Your task to perform on an android device: change timer sound Image 0: 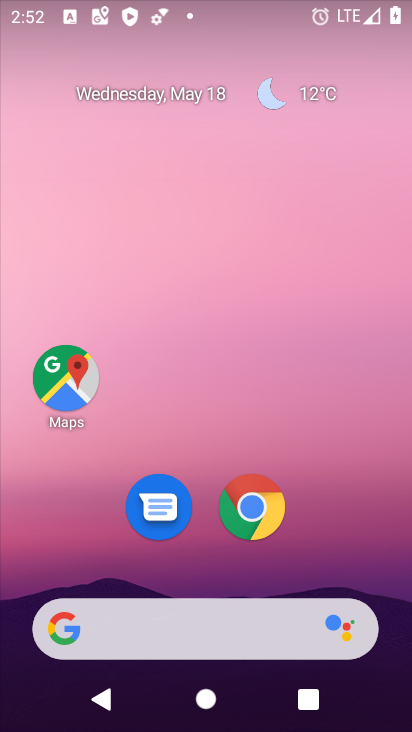
Step 0: drag from (386, 586) to (363, 91)
Your task to perform on an android device: change timer sound Image 1: 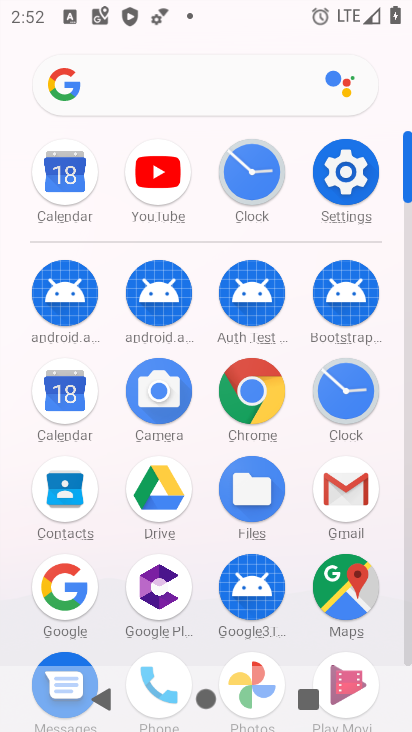
Step 1: click (344, 394)
Your task to perform on an android device: change timer sound Image 2: 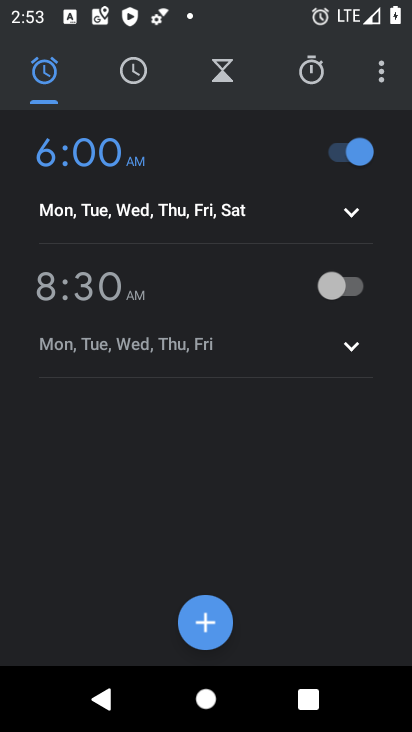
Step 2: click (381, 65)
Your task to perform on an android device: change timer sound Image 3: 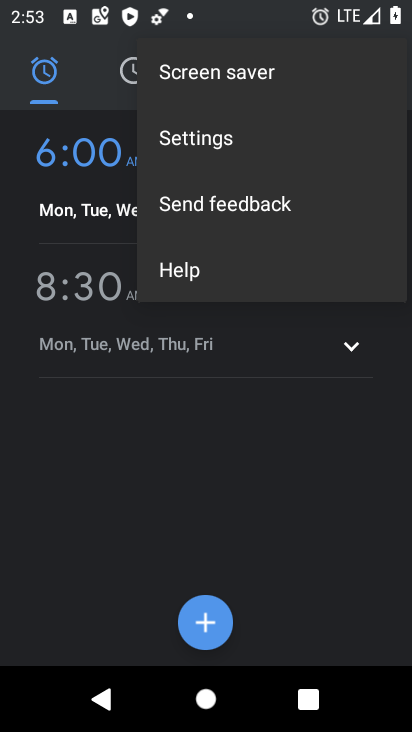
Step 3: click (195, 126)
Your task to perform on an android device: change timer sound Image 4: 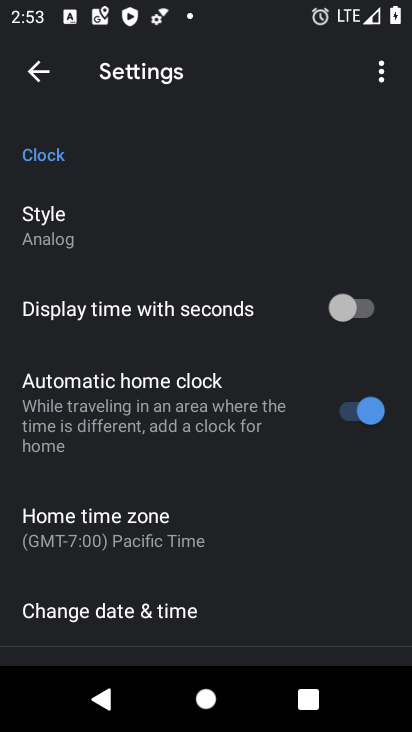
Step 4: drag from (263, 515) to (267, 162)
Your task to perform on an android device: change timer sound Image 5: 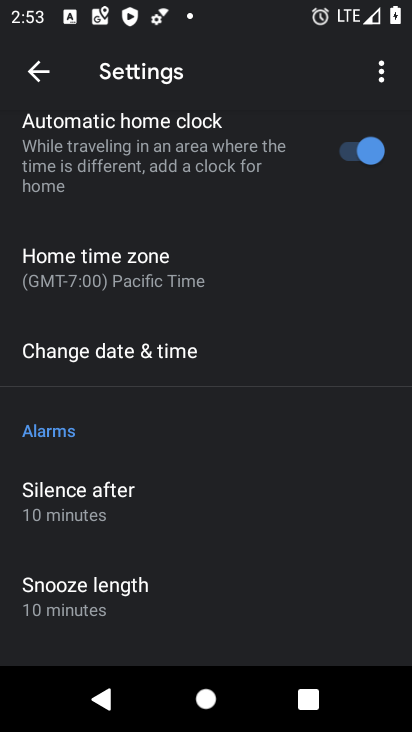
Step 5: drag from (207, 587) to (250, 248)
Your task to perform on an android device: change timer sound Image 6: 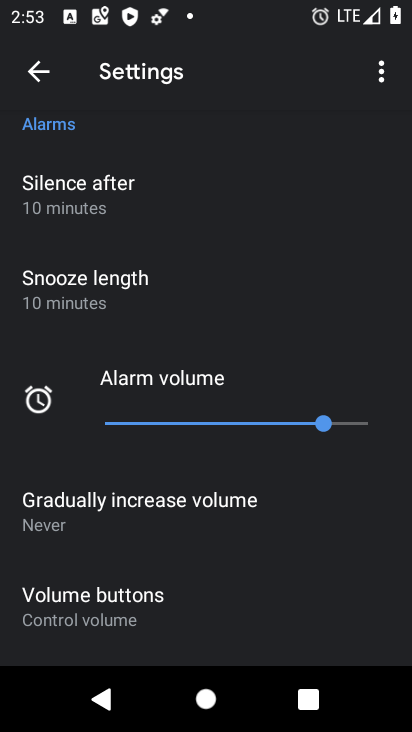
Step 6: drag from (244, 524) to (282, 111)
Your task to perform on an android device: change timer sound Image 7: 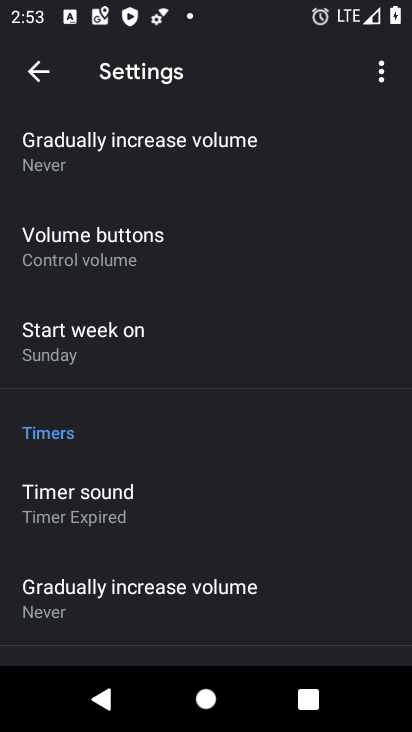
Step 7: click (80, 507)
Your task to perform on an android device: change timer sound Image 8: 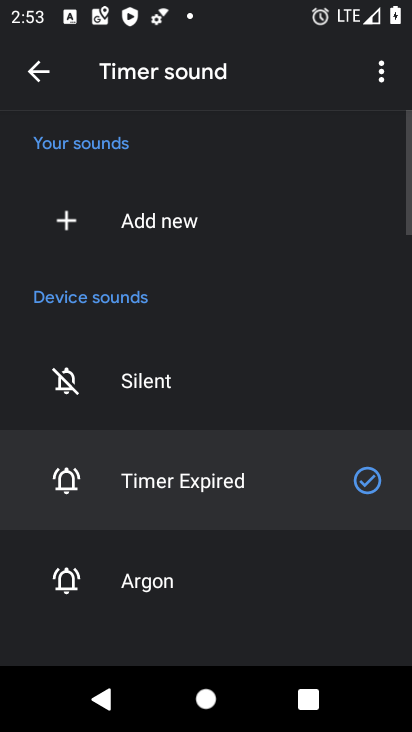
Step 8: drag from (300, 582) to (283, 34)
Your task to perform on an android device: change timer sound Image 9: 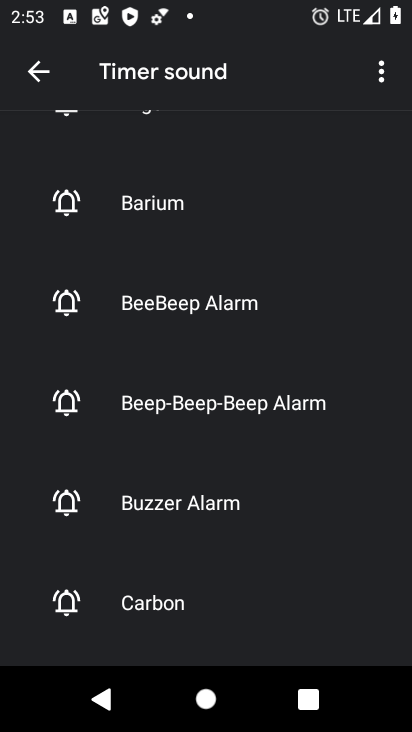
Step 9: click (173, 491)
Your task to perform on an android device: change timer sound Image 10: 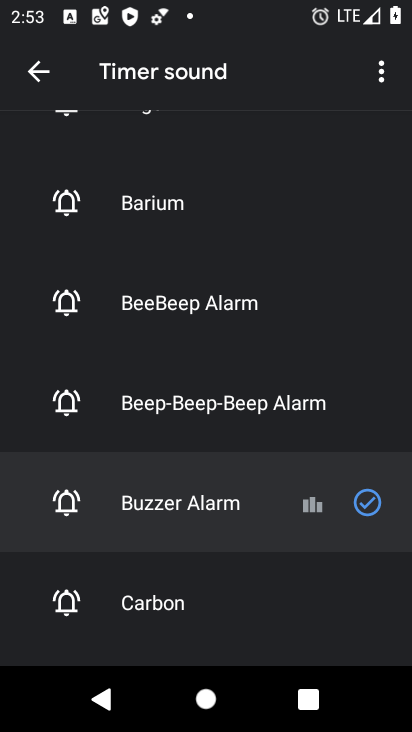
Step 10: task complete